Your task to perform on an android device: turn smart compose on in the gmail app Image 0: 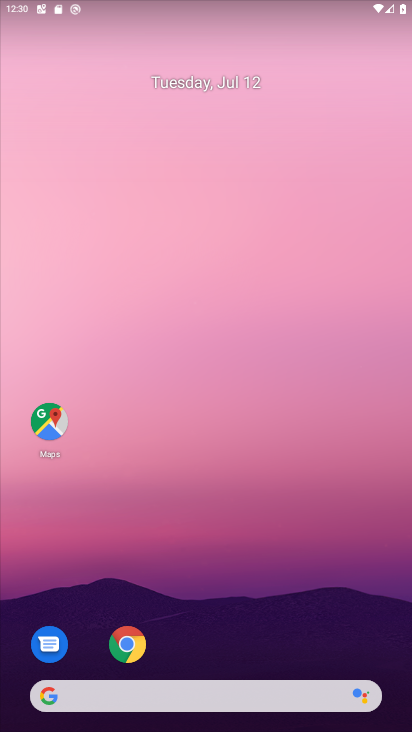
Step 0: drag from (168, 673) to (252, 226)
Your task to perform on an android device: turn smart compose on in the gmail app Image 1: 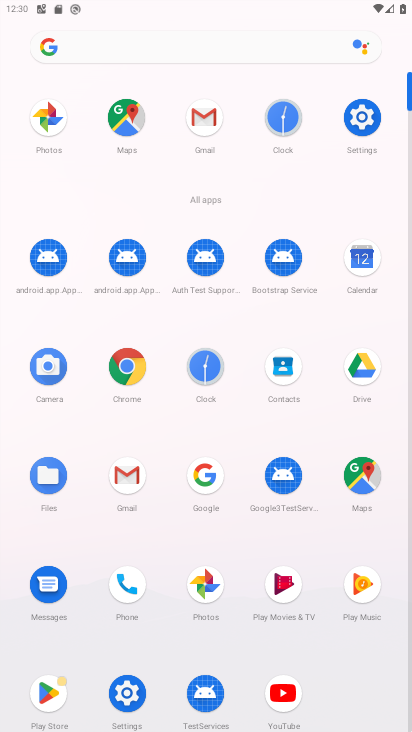
Step 1: click (122, 481)
Your task to perform on an android device: turn smart compose on in the gmail app Image 2: 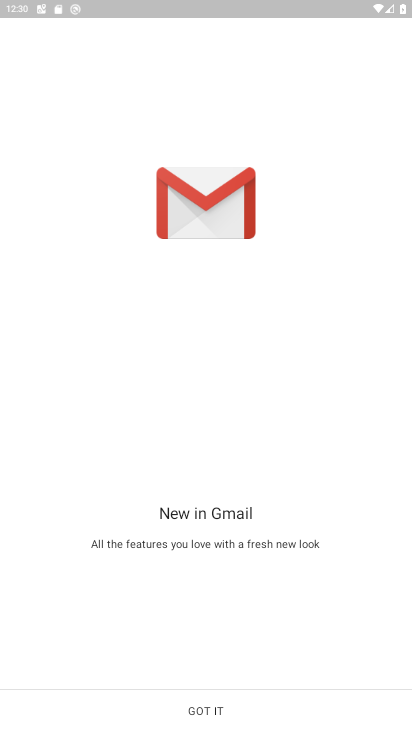
Step 2: click (197, 713)
Your task to perform on an android device: turn smart compose on in the gmail app Image 3: 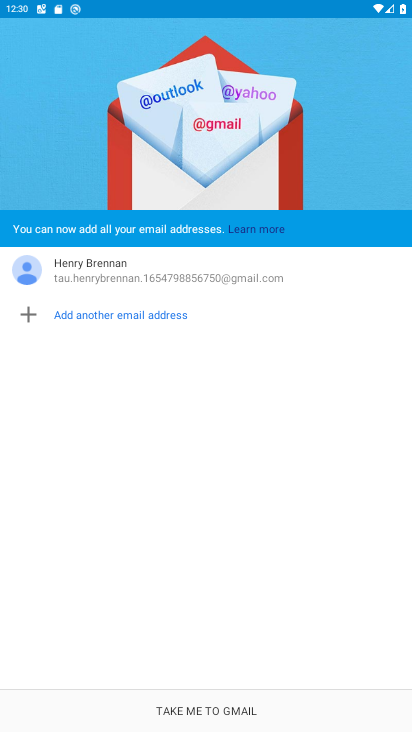
Step 3: click (204, 708)
Your task to perform on an android device: turn smart compose on in the gmail app Image 4: 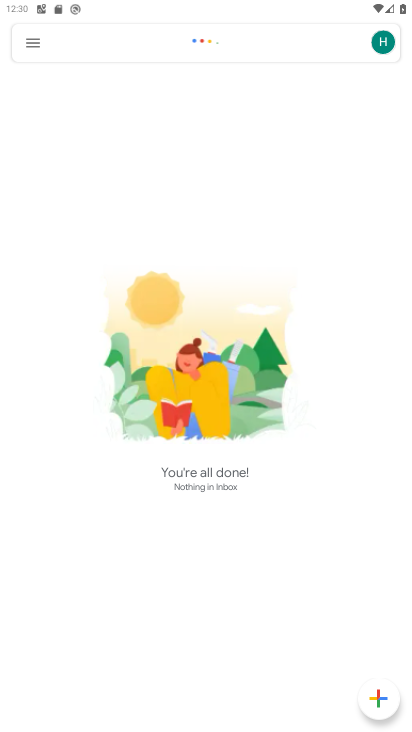
Step 4: click (40, 52)
Your task to perform on an android device: turn smart compose on in the gmail app Image 5: 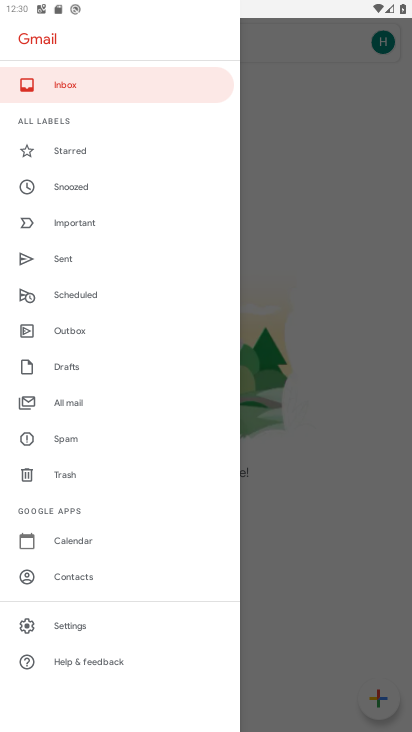
Step 5: click (63, 620)
Your task to perform on an android device: turn smart compose on in the gmail app Image 6: 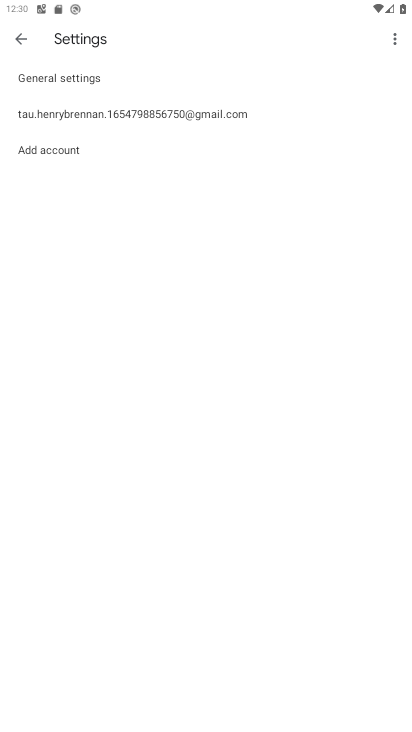
Step 6: click (223, 110)
Your task to perform on an android device: turn smart compose on in the gmail app Image 7: 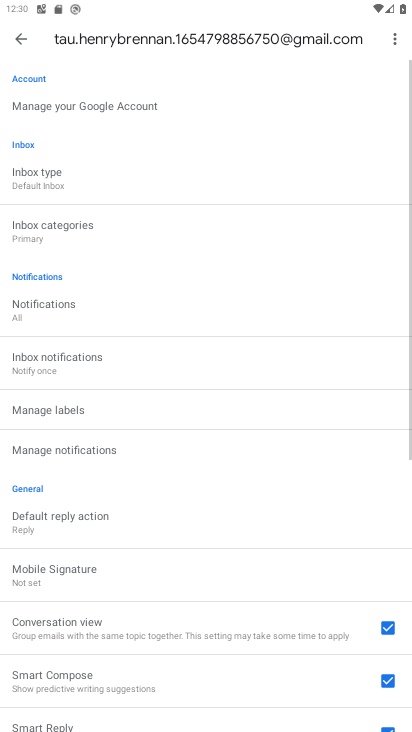
Step 7: task complete